Your task to perform on an android device: Open calendar and show me the third week of next month Image 0: 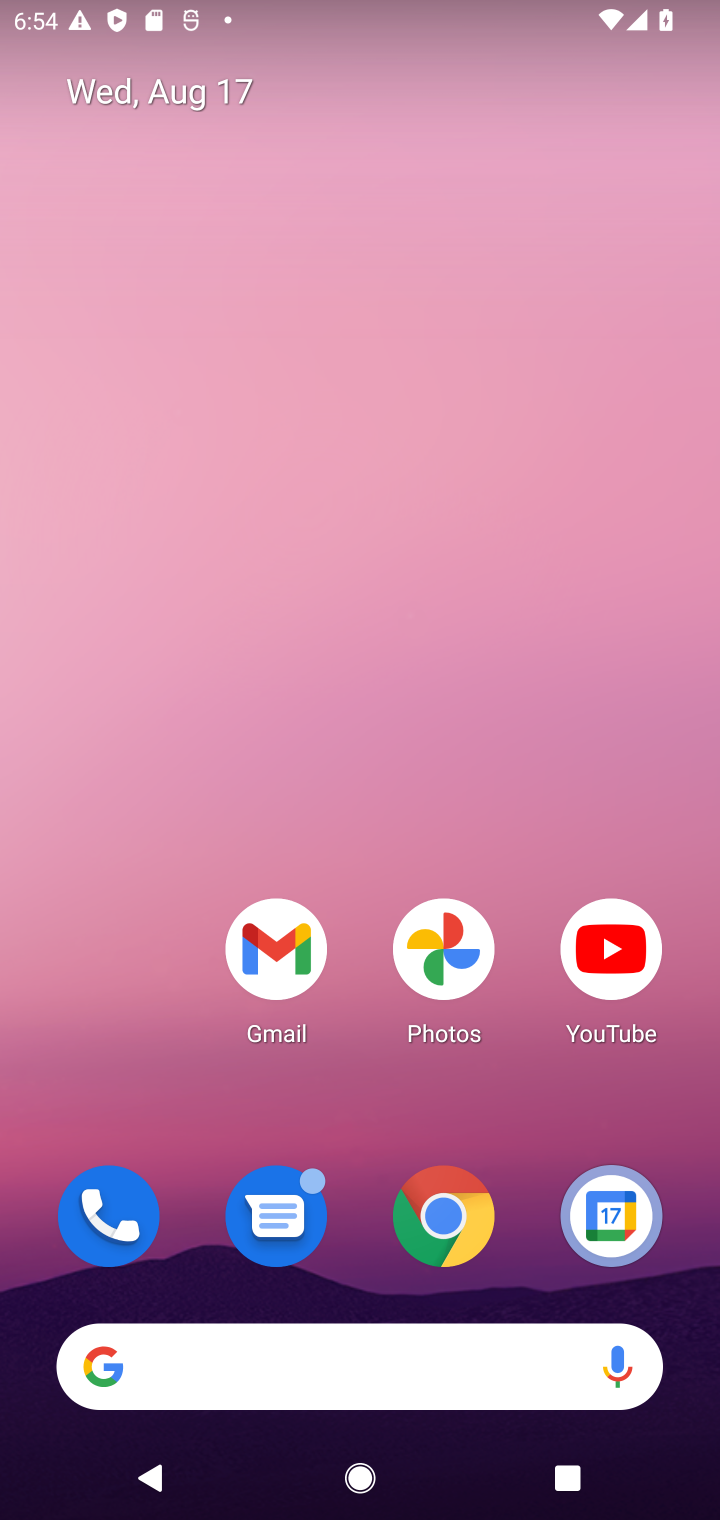
Step 0: drag from (507, 1069) to (584, 7)
Your task to perform on an android device: Open calendar and show me the third week of next month Image 1: 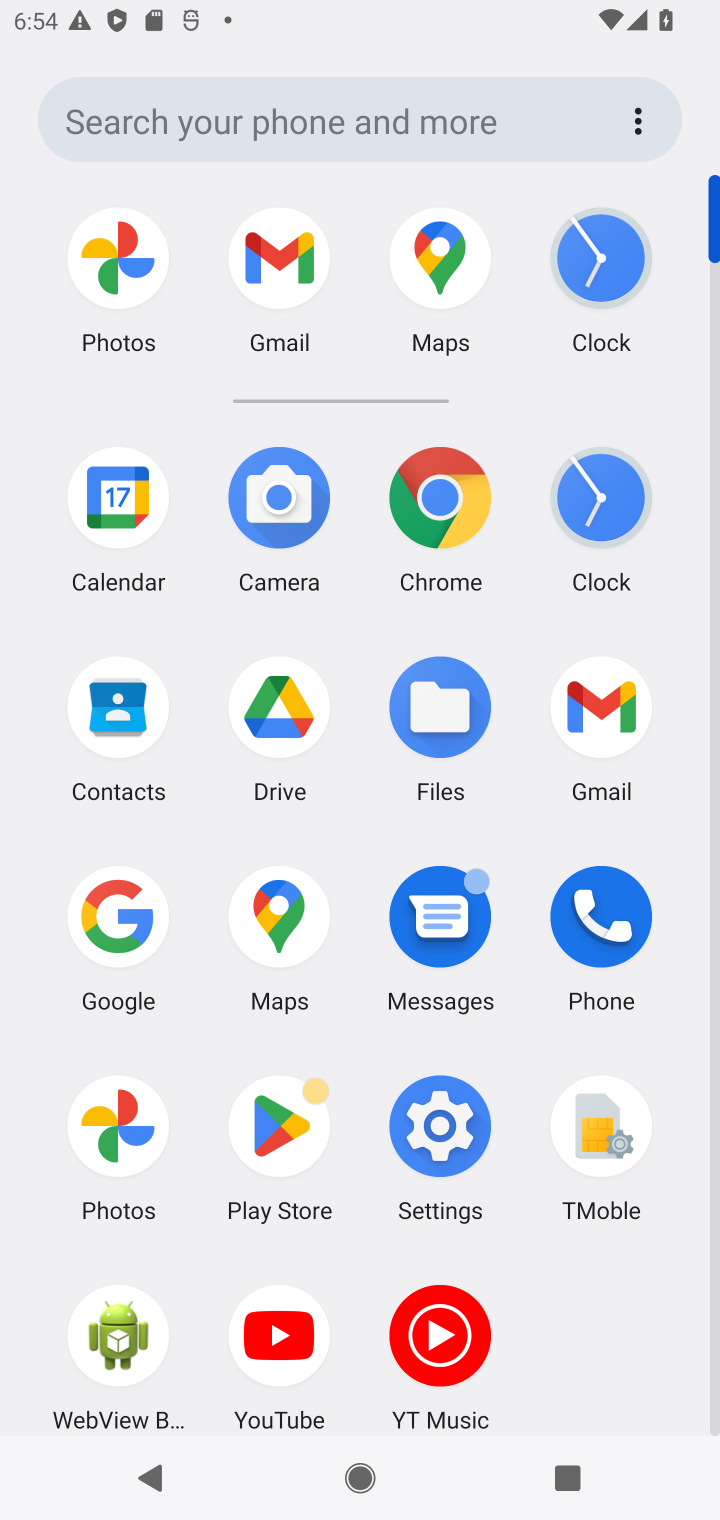
Step 1: click (139, 486)
Your task to perform on an android device: Open calendar and show me the third week of next month Image 2: 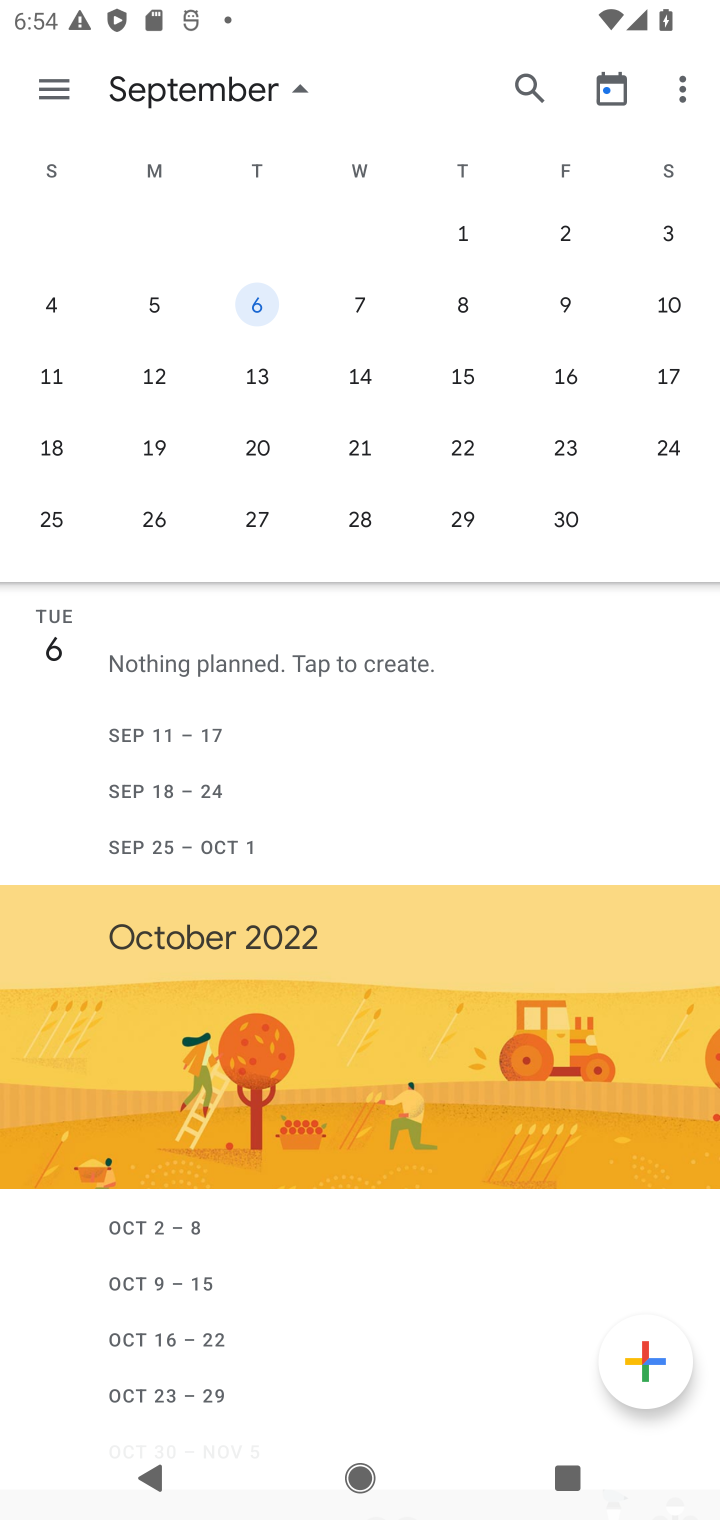
Step 2: click (355, 446)
Your task to perform on an android device: Open calendar and show me the third week of next month Image 3: 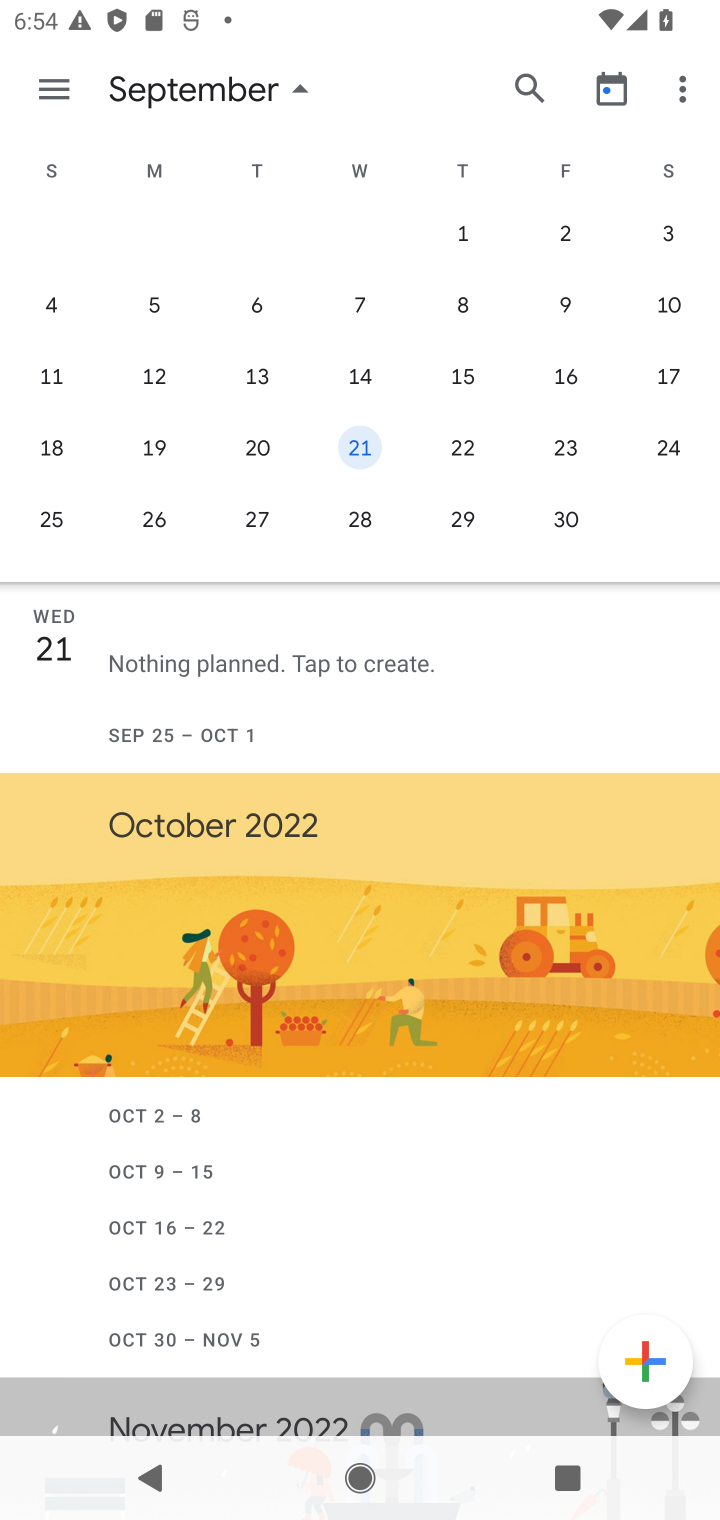
Step 3: task complete